Your task to perform on an android device: Go to Android settings Image 0: 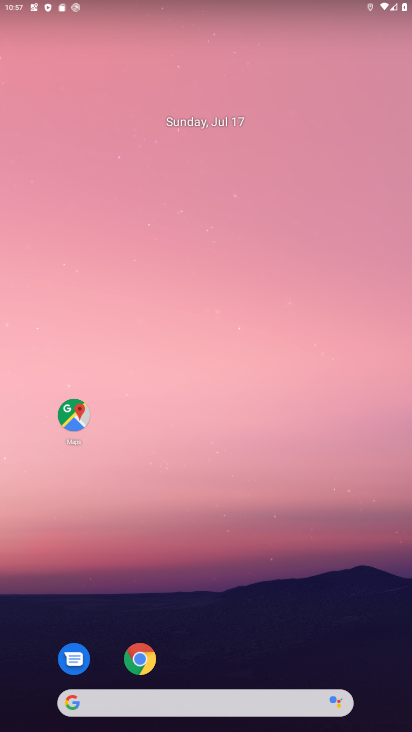
Step 0: press home button
Your task to perform on an android device: Go to Android settings Image 1: 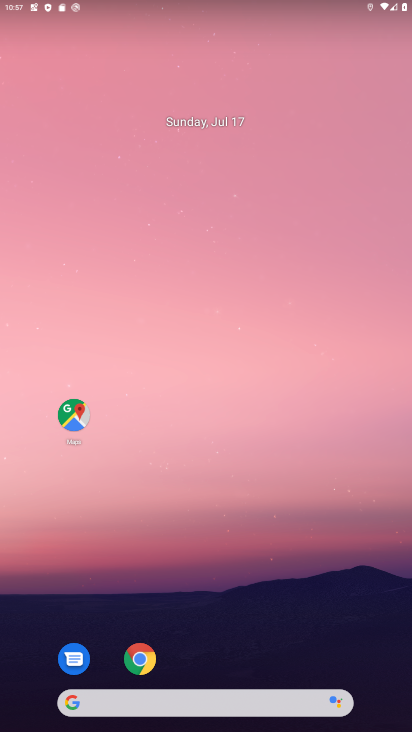
Step 1: drag from (264, 630) to (339, 97)
Your task to perform on an android device: Go to Android settings Image 2: 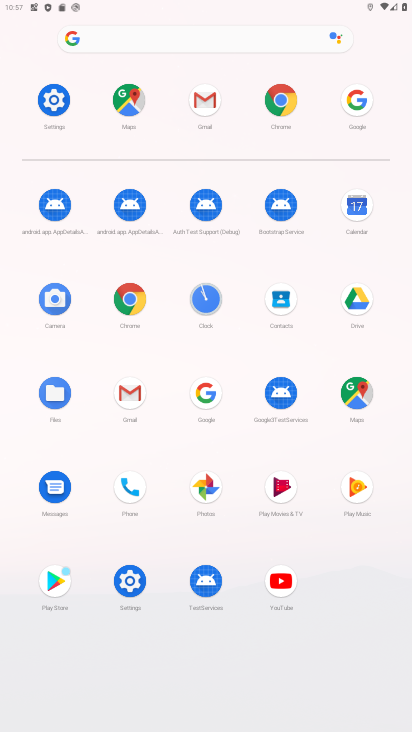
Step 2: click (60, 93)
Your task to perform on an android device: Go to Android settings Image 3: 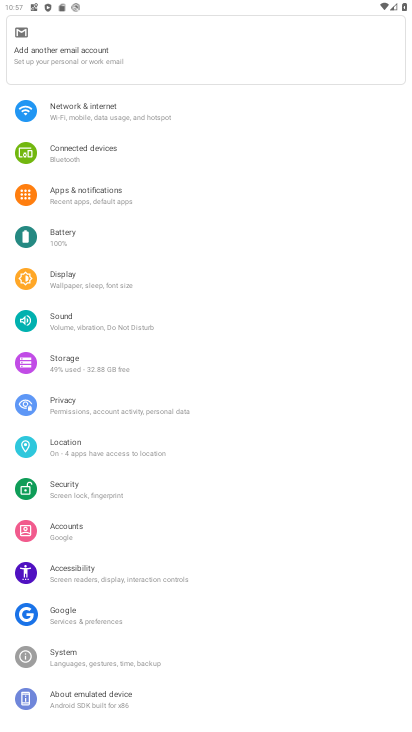
Step 3: task complete